Your task to perform on an android device: Go to Reddit.com Image 0: 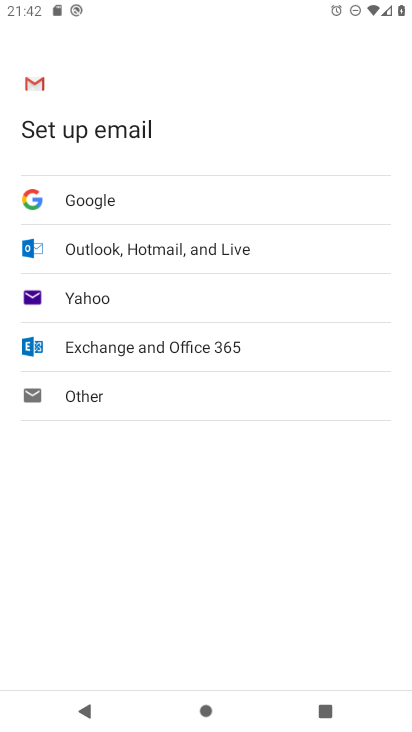
Step 0: press home button
Your task to perform on an android device: Go to Reddit.com Image 1: 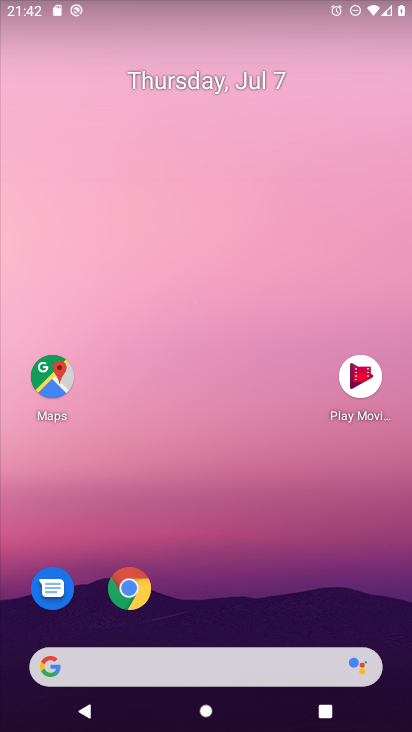
Step 1: drag from (183, 645) to (184, 302)
Your task to perform on an android device: Go to Reddit.com Image 2: 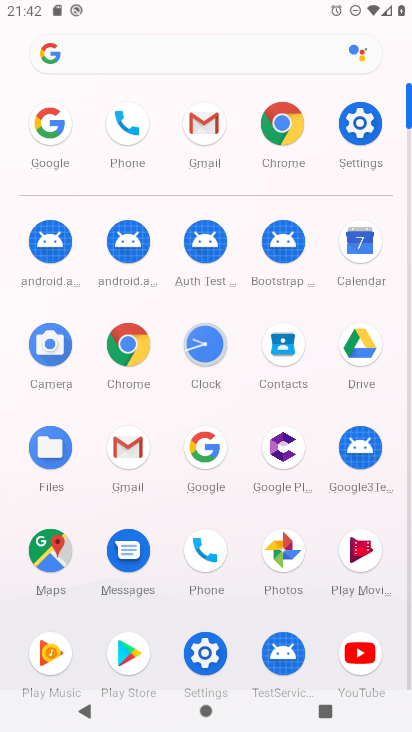
Step 2: click (294, 121)
Your task to perform on an android device: Go to Reddit.com Image 3: 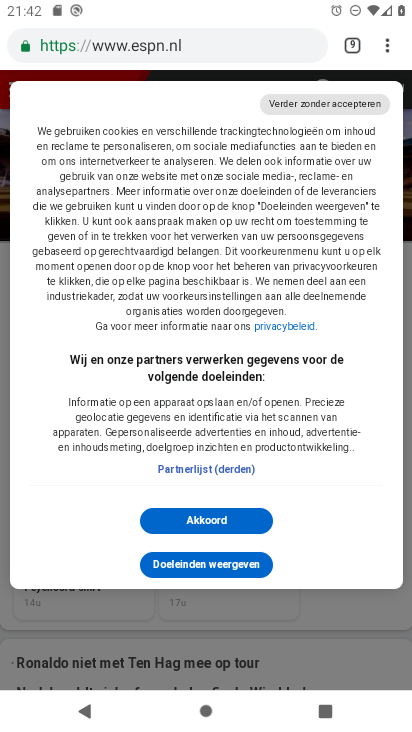
Step 3: click (387, 43)
Your task to perform on an android device: Go to Reddit.com Image 4: 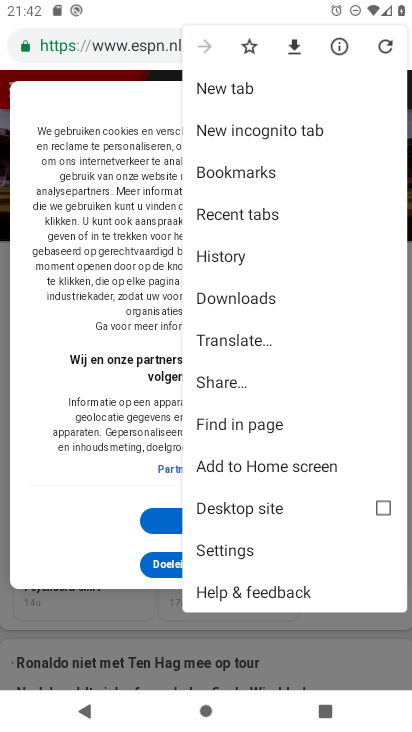
Step 4: click (239, 90)
Your task to perform on an android device: Go to Reddit.com Image 5: 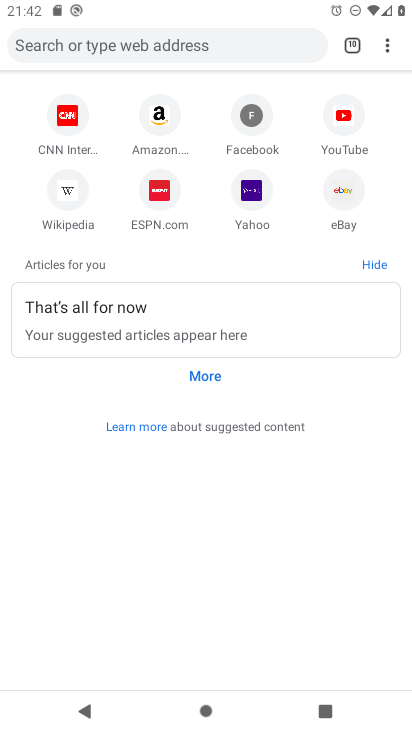
Step 5: click (176, 34)
Your task to perform on an android device: Go to Reddit.com Image 6: 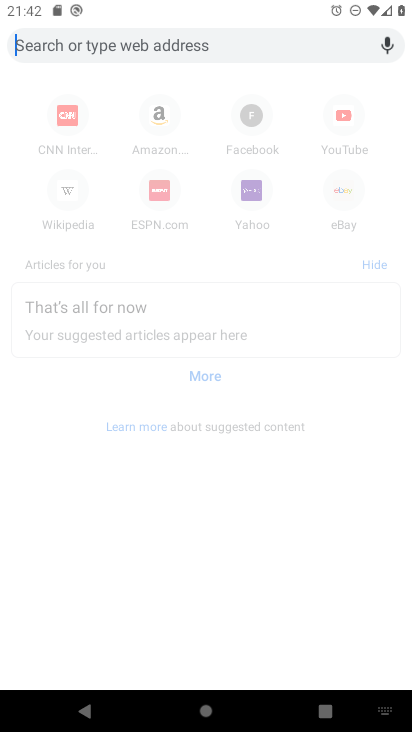
Step 6: type "Reddit.com "
Your task to perform on an android device: Go to Reddit.com Image 7: 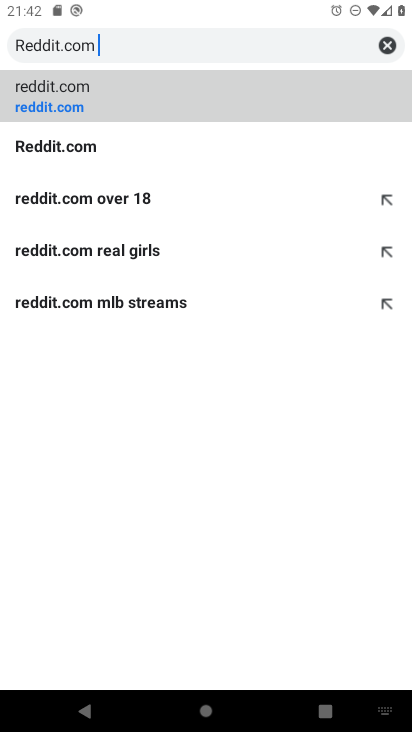
Step 7: click (105, 96)
Your task to perform on an android device: Go to Reddit.com Image 8: 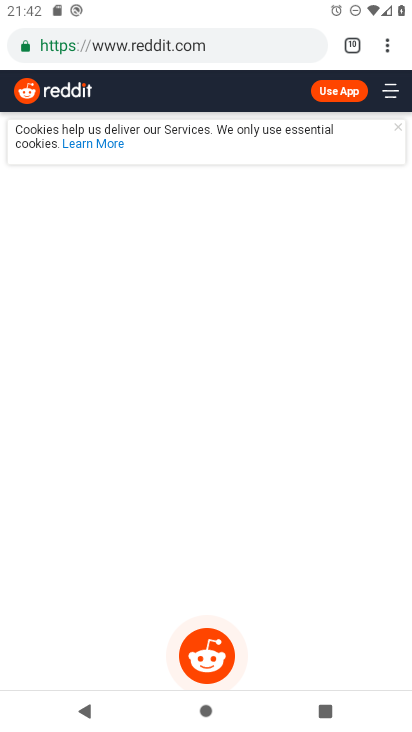
Step 8: task complete